Your task to perform on an android device: Search for Italian restaurants on Maps Image 0: 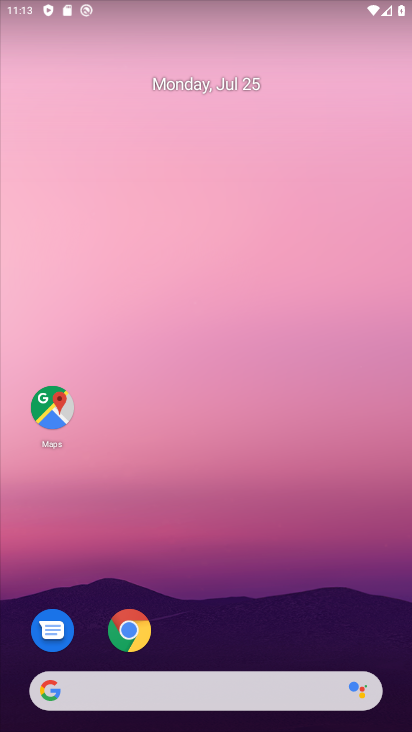
Step 0: click (48, 396)
Your task to perform on an android device: Search for Italian restaurants on Maps Image 1: 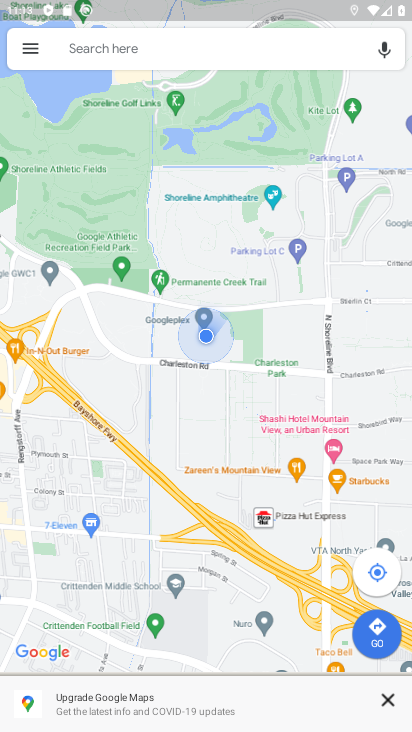
Step 1: click (221, 44)
Your task to perform on an android device: Search for Italian restaurants on Maps Image 2: 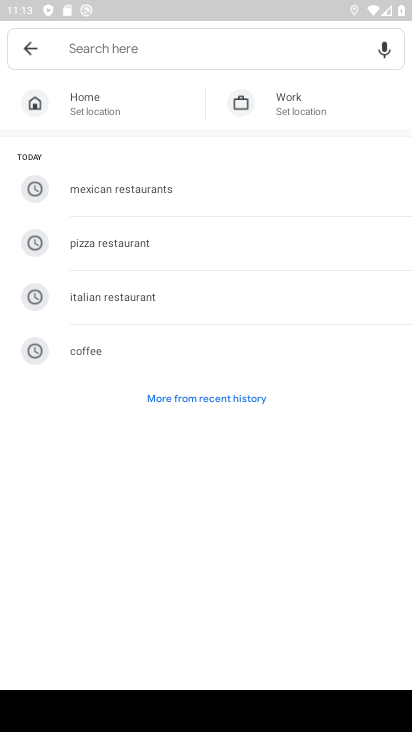
Step 2: type "italian restaurants"
Your task to perform on an android device: Search for Italian restaurants on Maps Image 3: 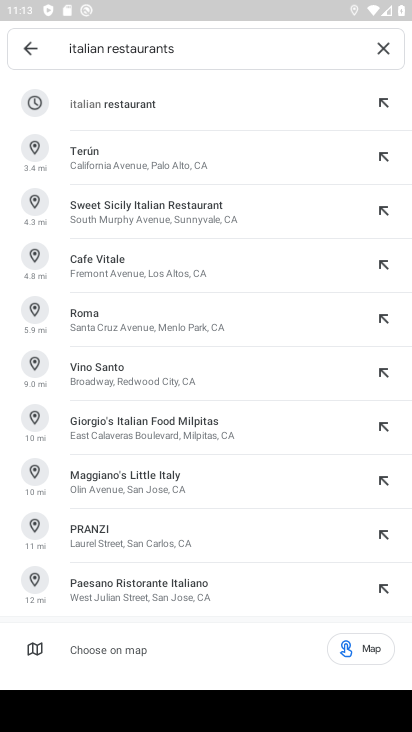
Step 3: click (221, 105)
Your task to perform on an android device: Search for Italian restaurants on Maps Image 4: 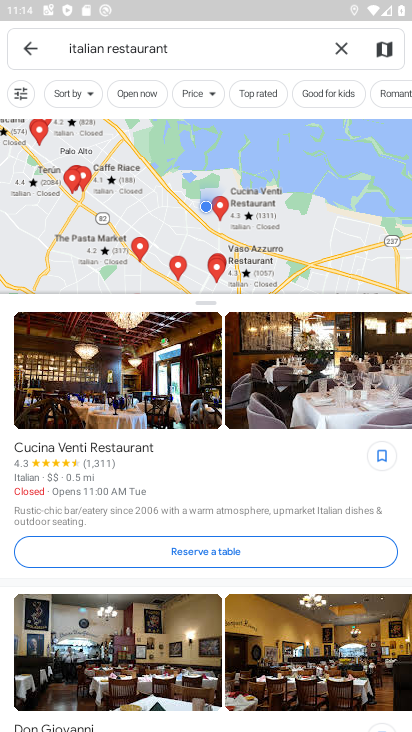
Step 4: task complete